Your task to perform on an android device: Open my contact list Image 0: 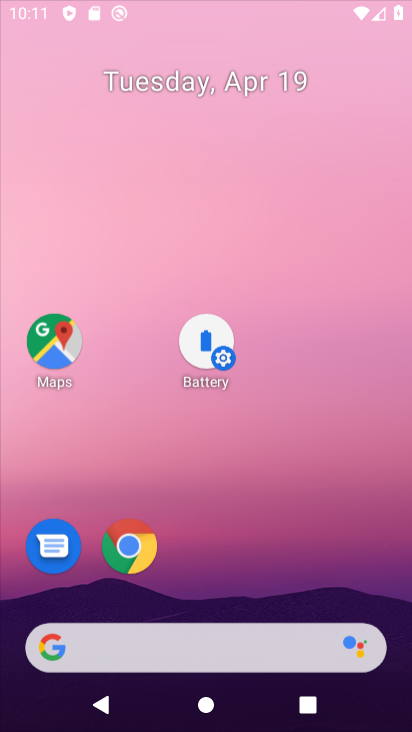
Step 0: click (219, 663)
Your task to perform on an android device: Open my contact list Image 1: 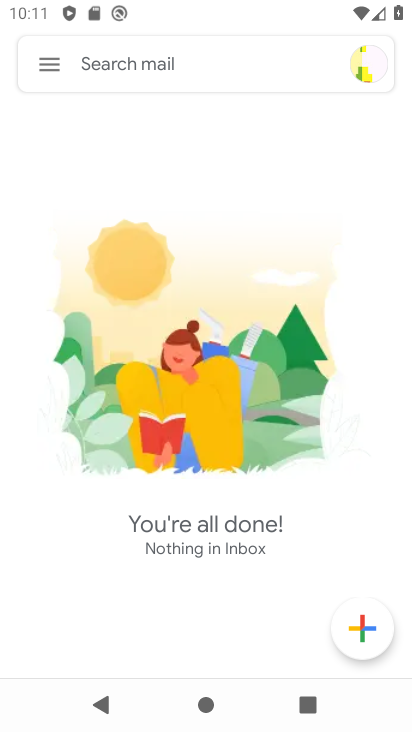
Step 1: press back button
Your task to perform on an android device: Open my contact list Image 2: 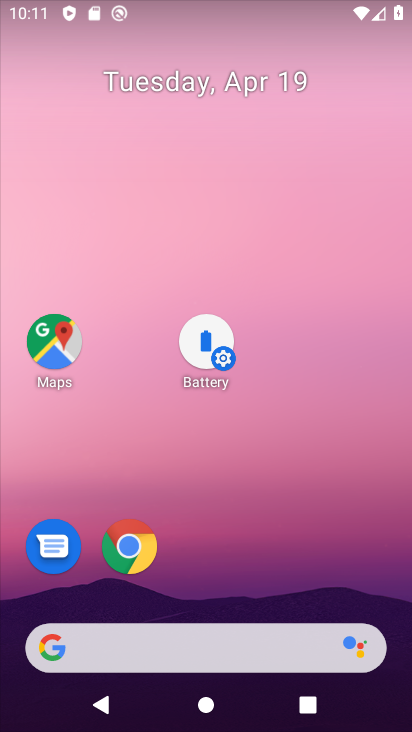
Step 2: drag from (213, 382) to (258, 98)
Your task to perform on an android device: Open my contact list Image 3: 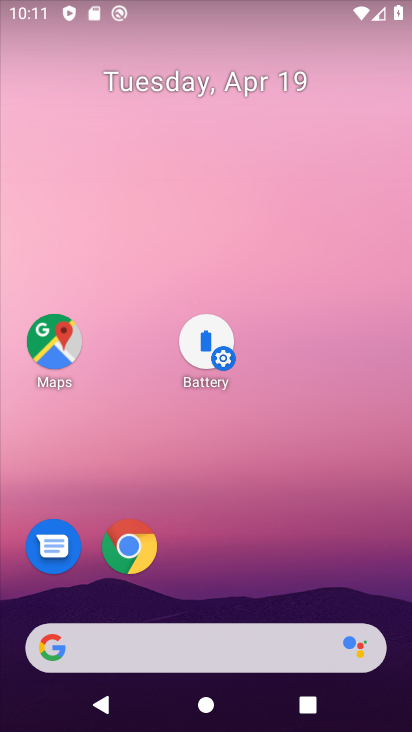
Step 3: drag from (274, 530) to (328, 70)
Your task to perform on an android device: Open my contact list Image 4: 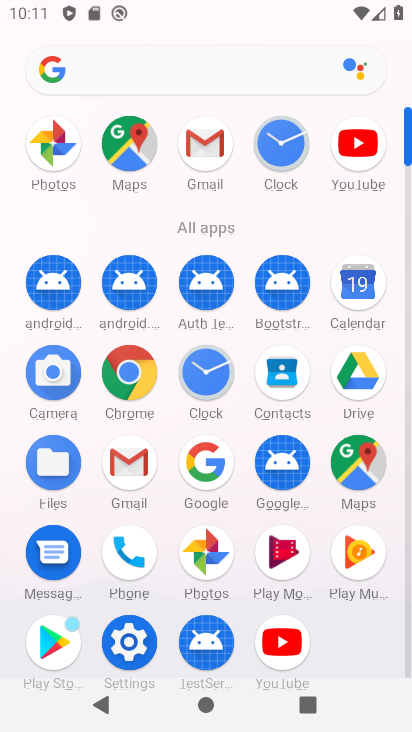
Step 4: click (289, 375)
Your task to perform on an android device: Open my contact list Image 5: 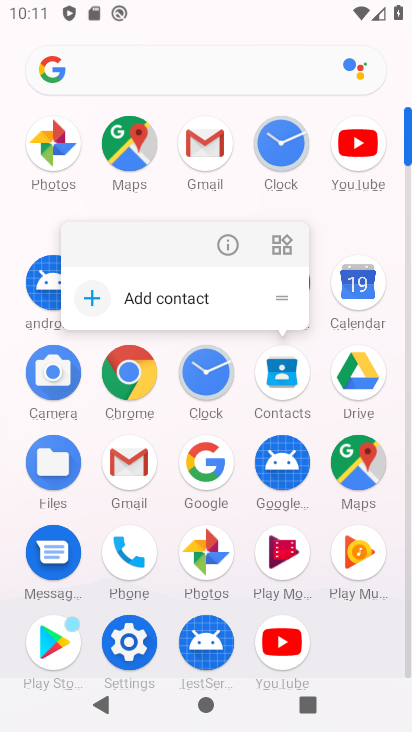
Step 5: click (289, 375)
Your task to perform on an android device: Open my contact list Image 6: 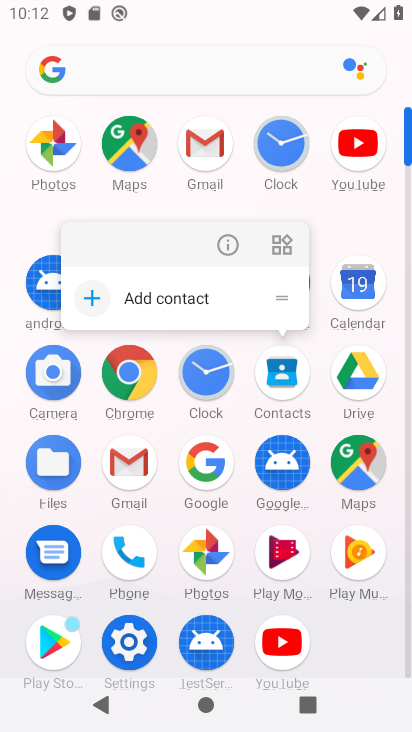
Step 6: click (289, 375)
Your task to perform on an android device: Open my contact list Image 7: 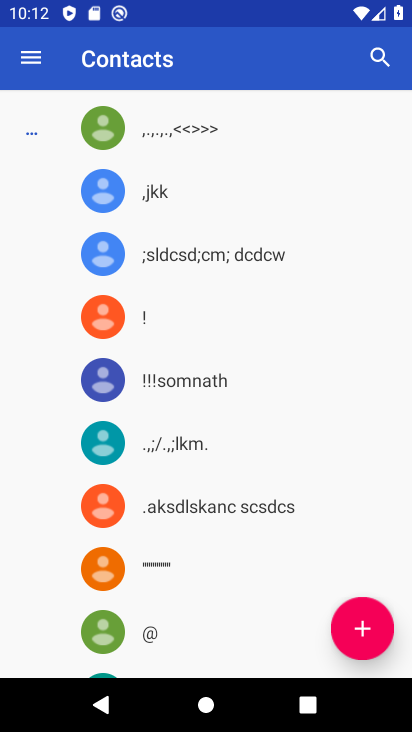
Step 7: task complete